Your task to perform on an android device: Open Google Maps Image 0: 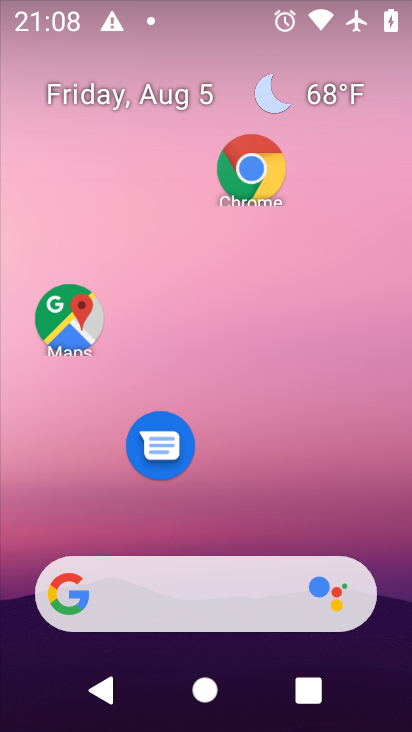
Step 0: click (89, 338)
Your task to perform on an android device: Open Google Maps Image 1: 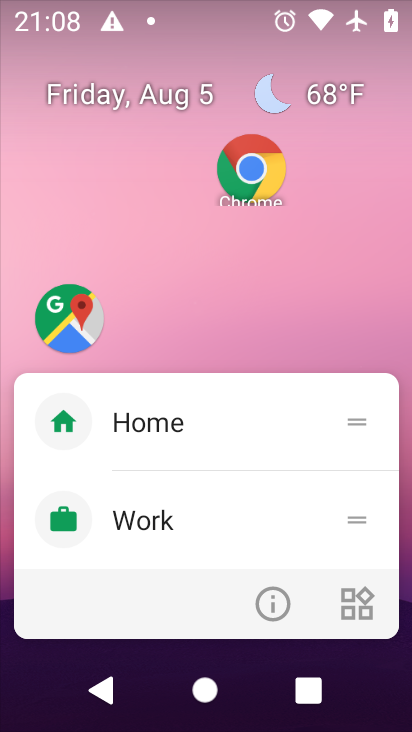
Step 1: click (79, 323)
Your task to perform on an android device: Open Google Maps Image 2: 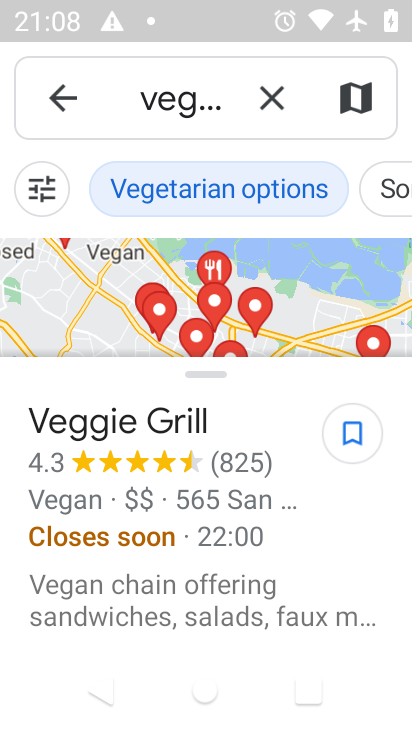
Step 2: task complete